Your task to perform on an android device: Go to Google Image 0: 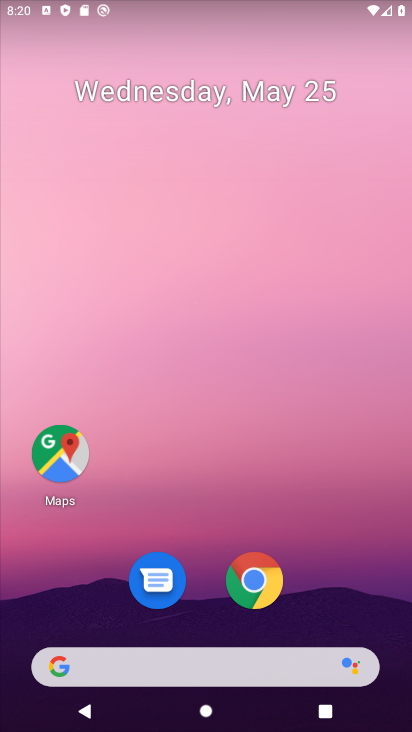
Step 0: click (121, 662)
Your task to perform on an android device: Go to Google Image 1: 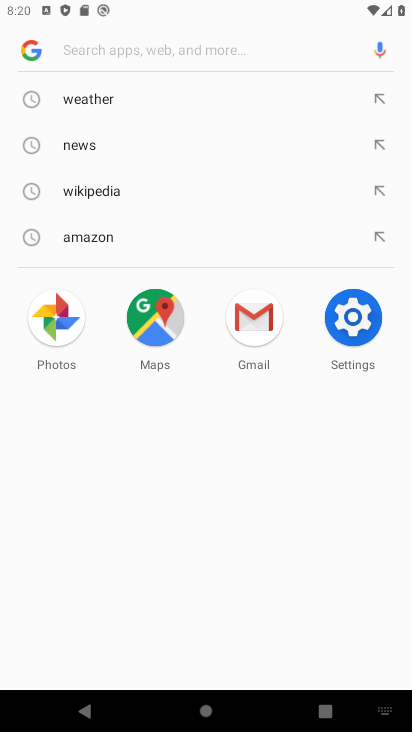
Step 1: click (28, 51)
Your task to perform on an android device: Go to Google Image 2: 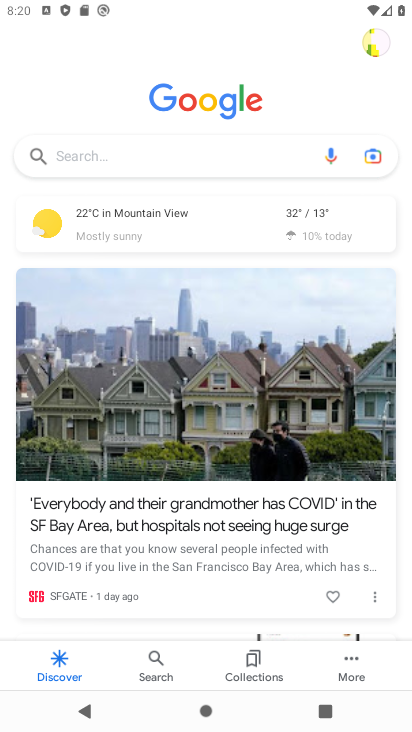
Step 2: task complete